Your task to perform on an android device: turn notification dots on Image 0: 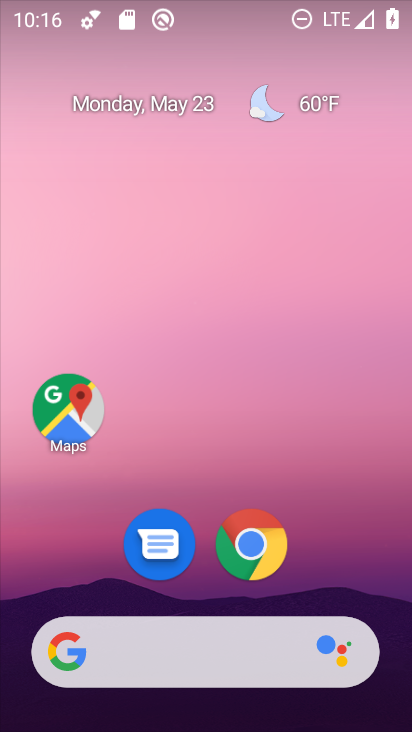
Step 0: drag from (330, 542) to (181, 201)
Your task to perform on an android device: turn notification dots on Image 1: 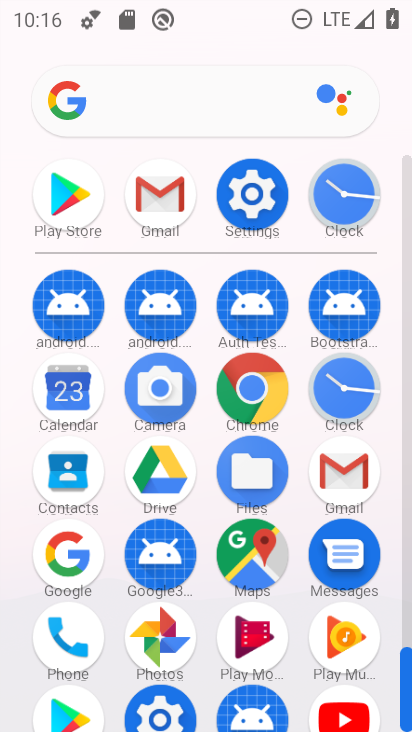
Step 1: click (262, 210)
Your task to perform on an android device: turn notification dots on Image 2: 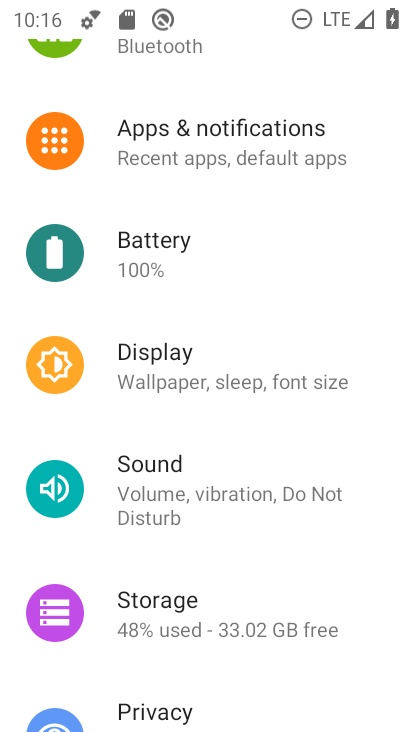
Step 2: click (248, 156)
Your task to perform on an android device: turn notification dots on Image 3: 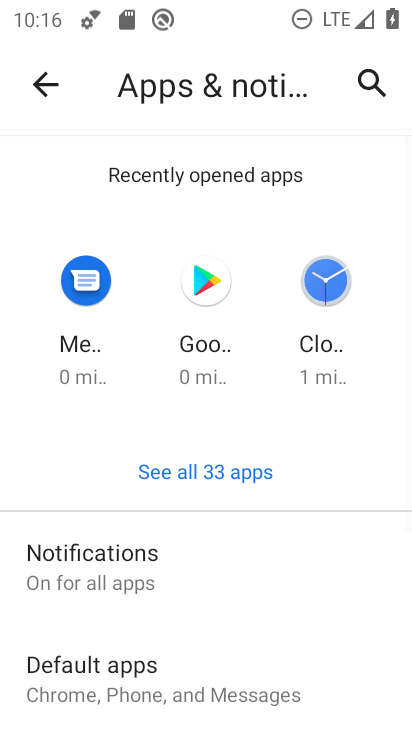
Step 3: click (102, 564)
Your task to perform on an android device: turn notification dots on Image 4: 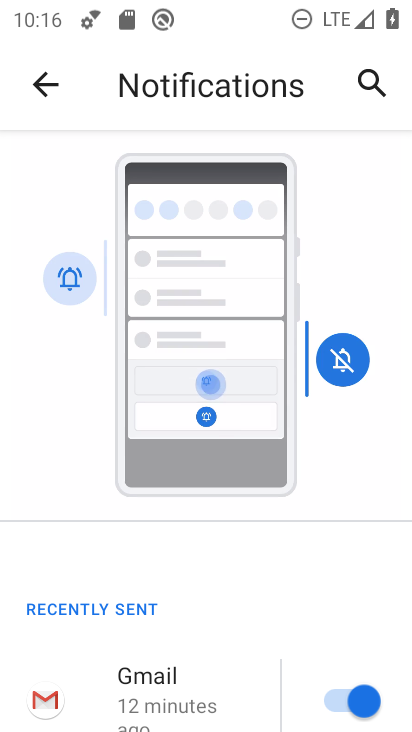
Step 4: drag from (282, 703) to (166, 153)
Your task to perform on an android device: turn notification dots on Image 5: 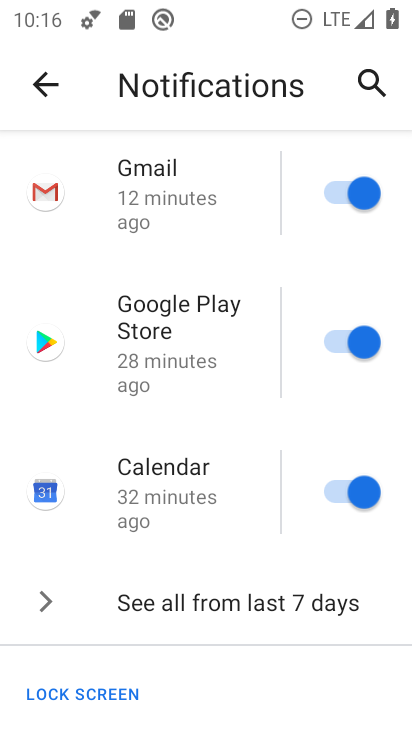
Step 5: drag from (204, 548) to (169, 236)
Your task to perform on an android device: turn notification dots on Image 6: 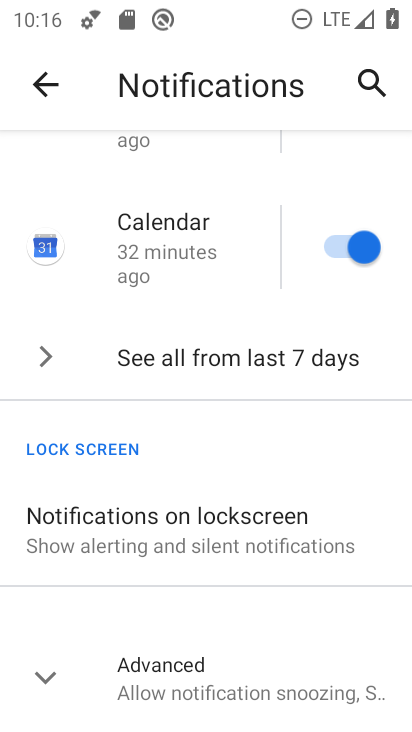
Step 6: click (209, 671)
Your task to perform on an android device: turn notification dots on Image 7: 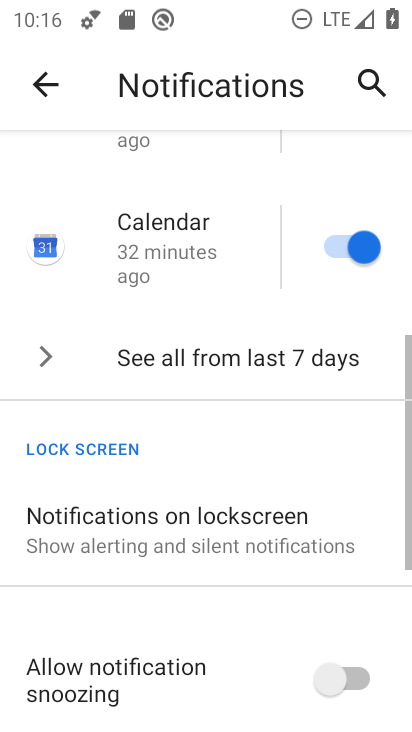
Step 7: task complete